Your task to perform on an android device: open app "DoorDash - Food Delivery" (install if not already installed) Image 0: 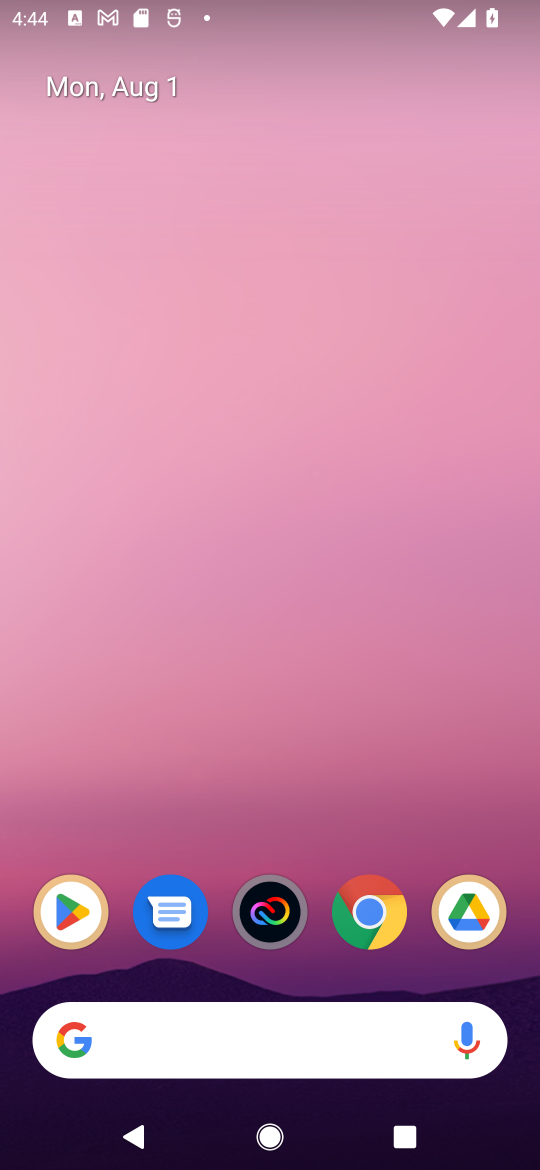
Step 0: drag from (304, 871) to (328, 149)
Your task to perform on an android device: open app "DoorDash - Food Delivery" (install if not already installed) Image 1: 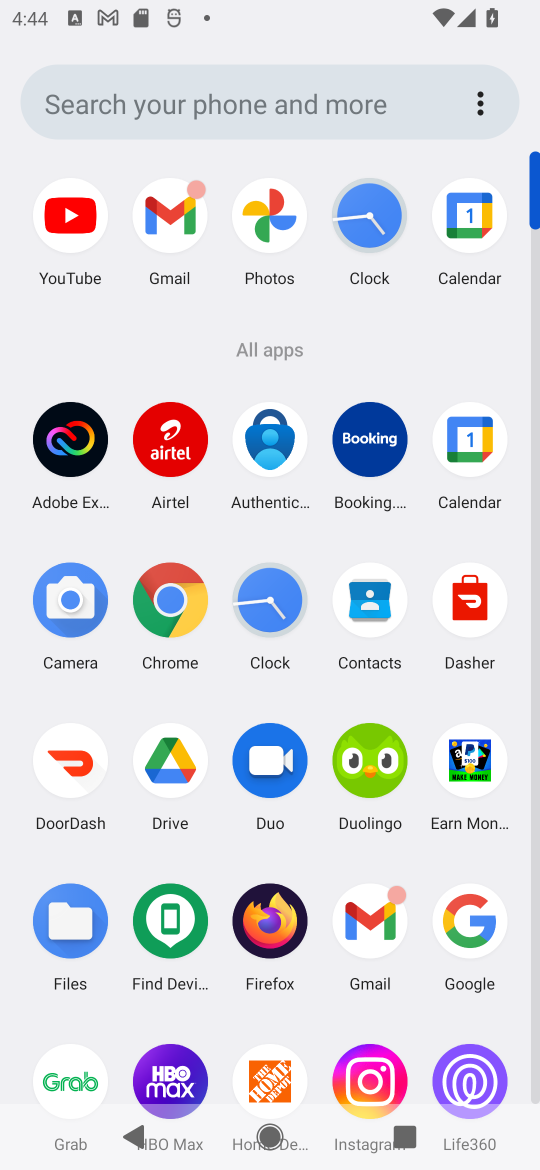
Step 1: click (64, 766)
Your task to perform on an android device: open app "DoorDash - Food Delivery" (install if not already installed) Image 2: 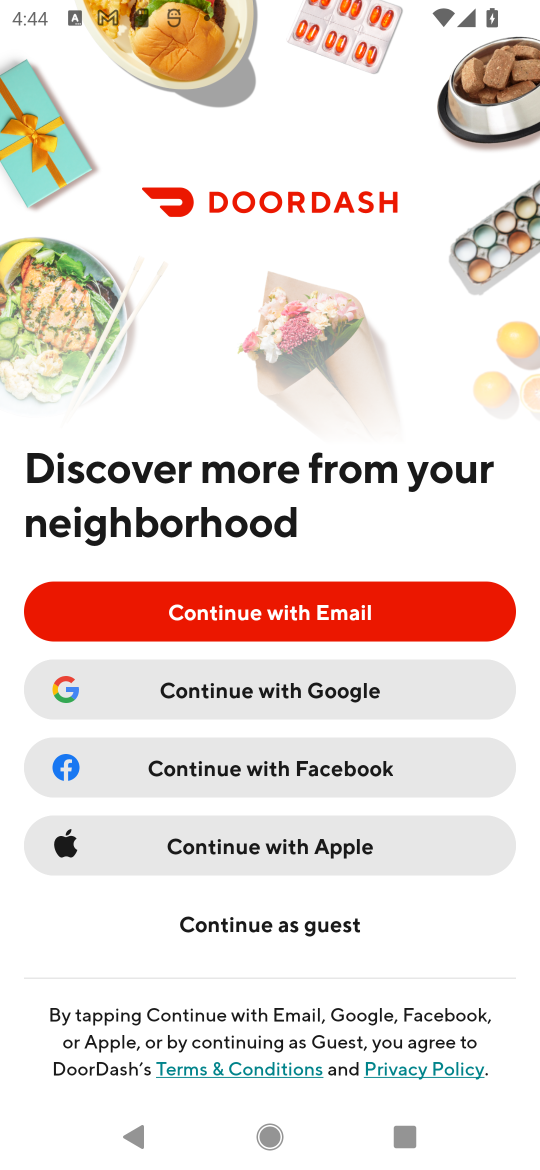
Step 2: task complete